Your task to perform on an android device: open chrome privacy settings Image 0: 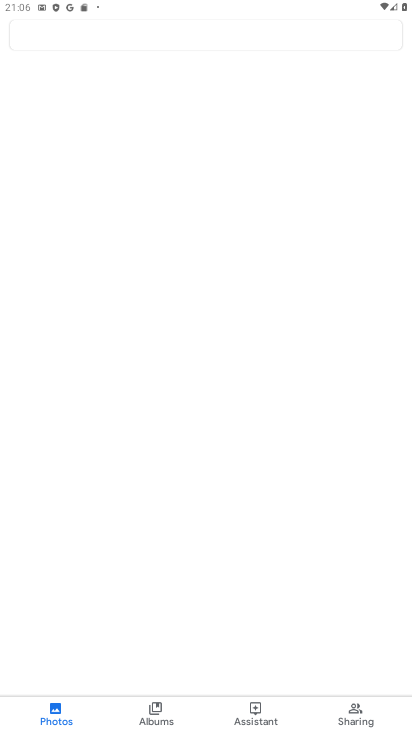
Step 0: press home button
Your task to perform on an android device: open chrome privacy settings Image 1: 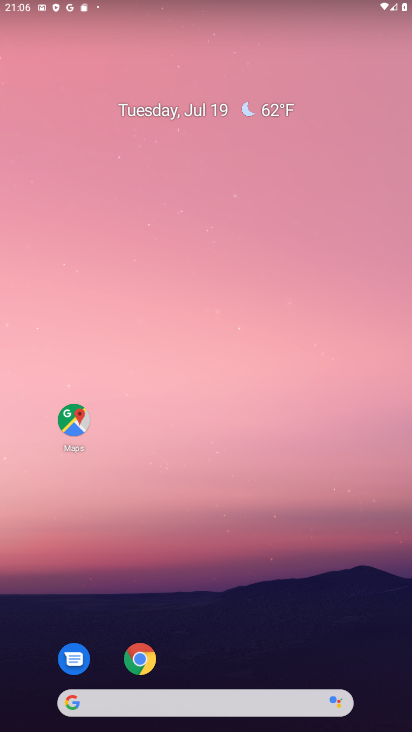
Step 1: click (152, 661)
Your task to perform on an android device: open chrome privacy settings Image 2: 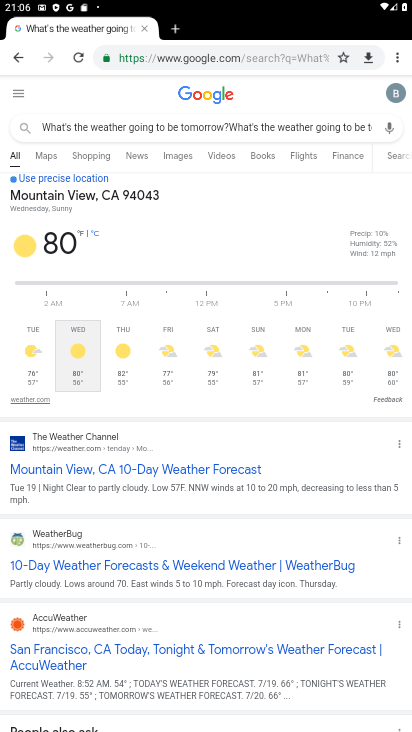
Step 2: drag from (395, 59) to (259, 344)
Your task to perform on an android device: open chrome privacy settings Image 3: 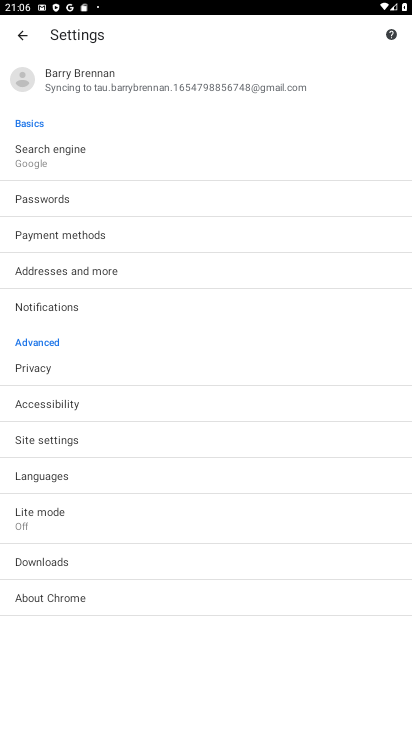
Step 3: click (99, 375)
Your task to perform on an android device: open chrome privacy settings Image 4: 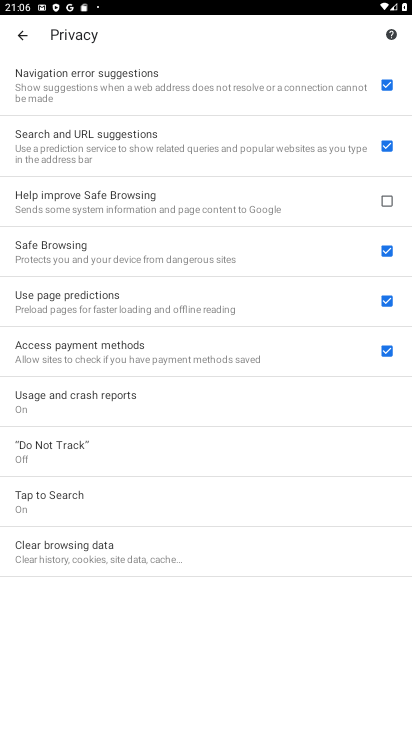
Step 4: task complete